Your task to perform on an android device: turn off javascript in the chrome app Image 0: 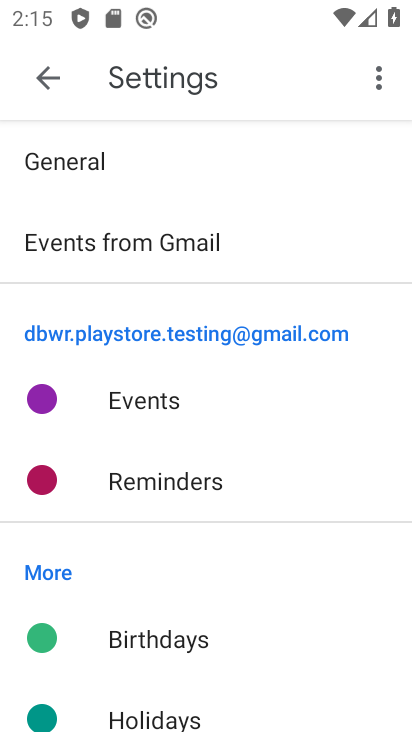
Step 0: press home button
Your task to perform on an android device: turn off javascript in the chrome app Image 1: 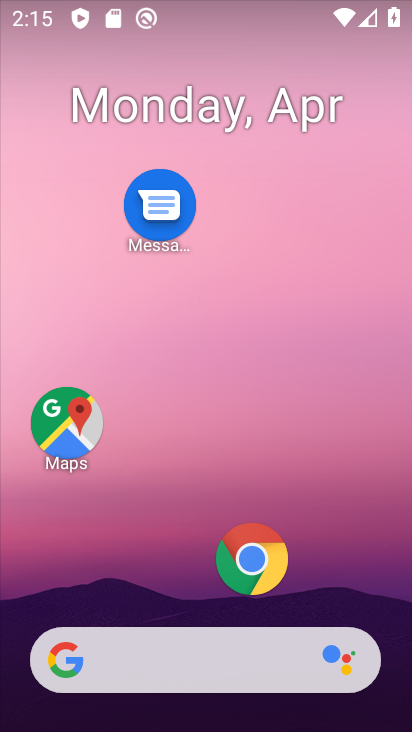
Step 1: drag from (131, 528) to (310, 0)
Your task to perform on an android device: turn off javascript in the chrome app Image 2: 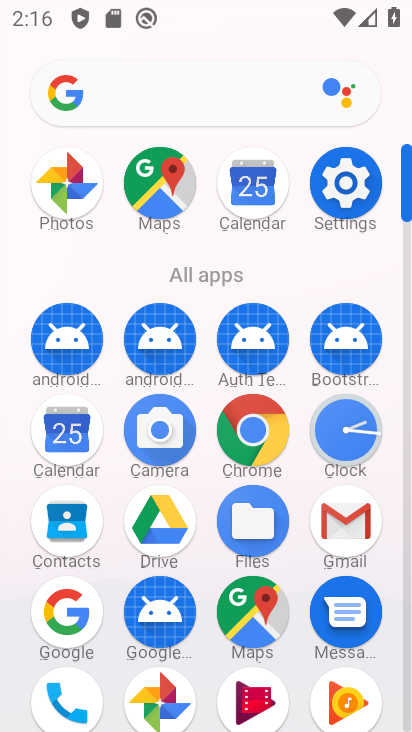
Step 2: click (257, 430)
Your task to perform on an android device: turn off javascript in the chrome app Image 3: 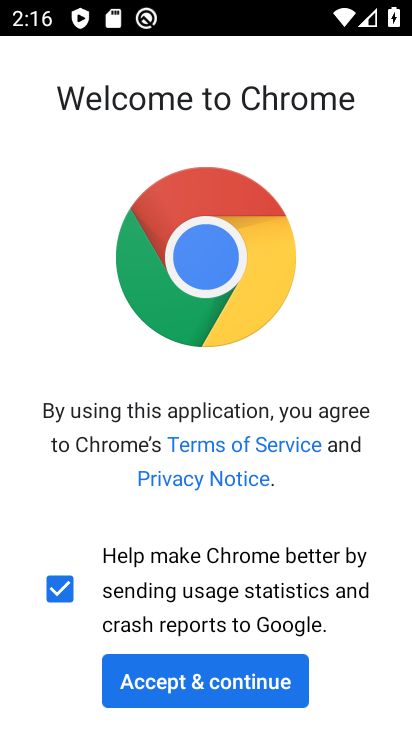
Step 3: click (201, 687)
Your task to perform on an android device: turn off javascript in the chrome app Image 4: 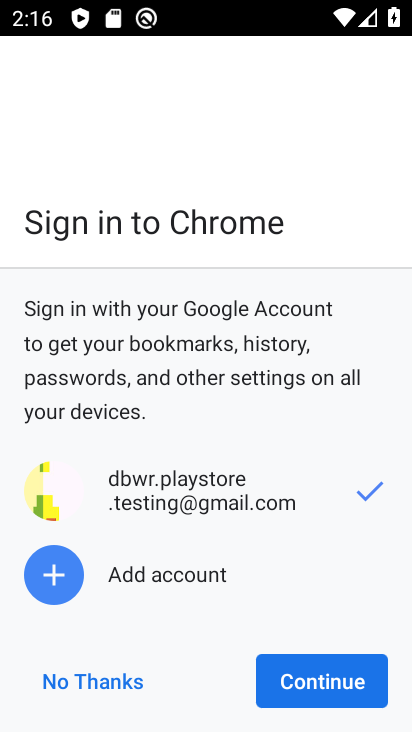
Step 4: click (313, 683)
Your task to perform on an android device: turn off javascript in the chrome app Image 5: 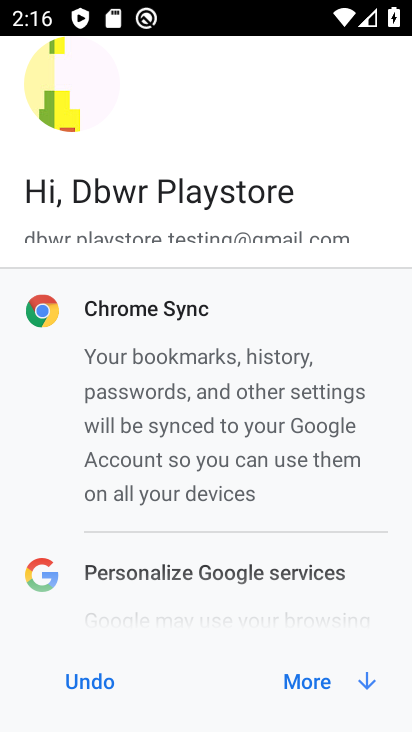
Step 5: click (313, 683)
Your task to perform on an android device: turn off javascript in the chrome app Image 6: 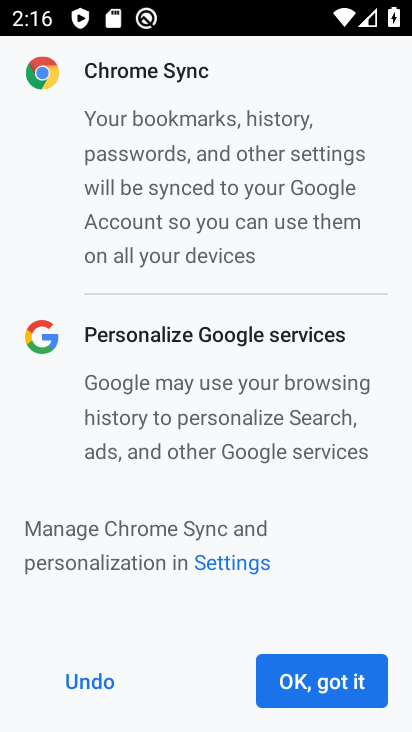
Step 6: click (320, 687)
Your task to perform on an android device: turn off javascript in the chrome app Image 7: 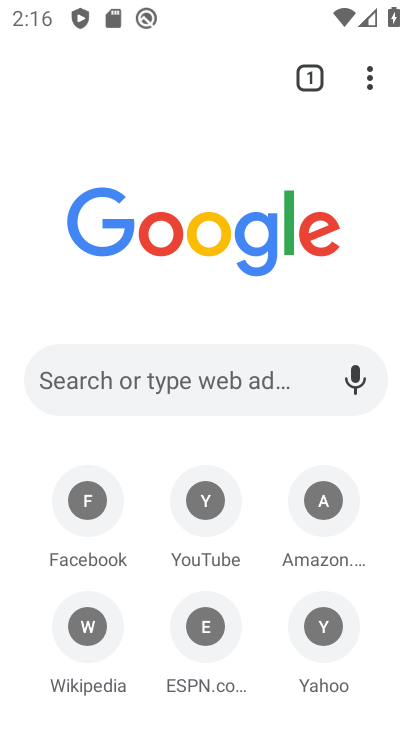
Step 7: click (373, 86)
Your task to perform on an android device: turn off javascript in the chrome app Image 8: 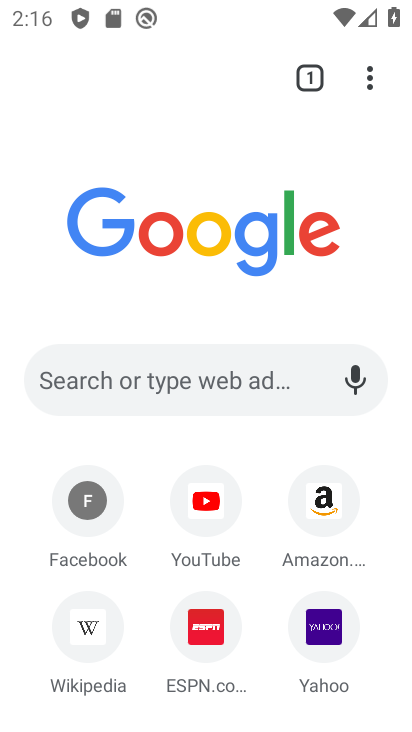
Step 8: click (371, 84)
Your task to perform on an android device: turn off javascript in the chrome app Image 9: 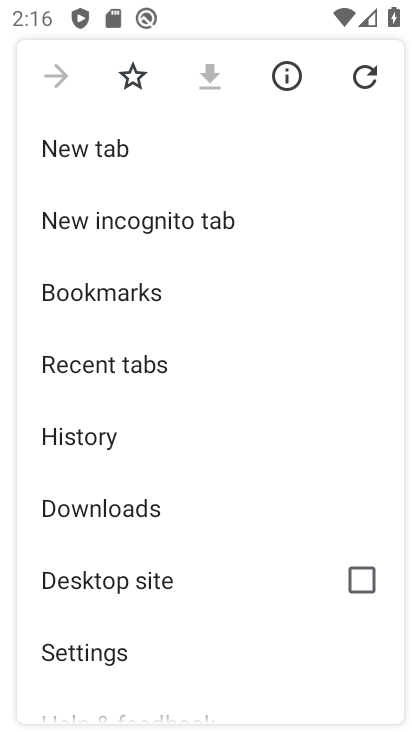
Step 9: drag from (146, 605) to (207, 198)
Your task to perform on an android device: turn off javascript in the chrome app Image 10: 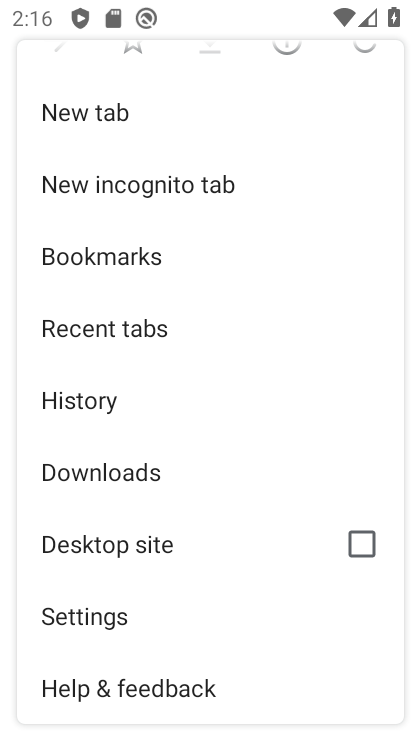
Step 10: click (104, 628)
Your task to perform on an android device: turn off javascript in the chrome app Image 11: 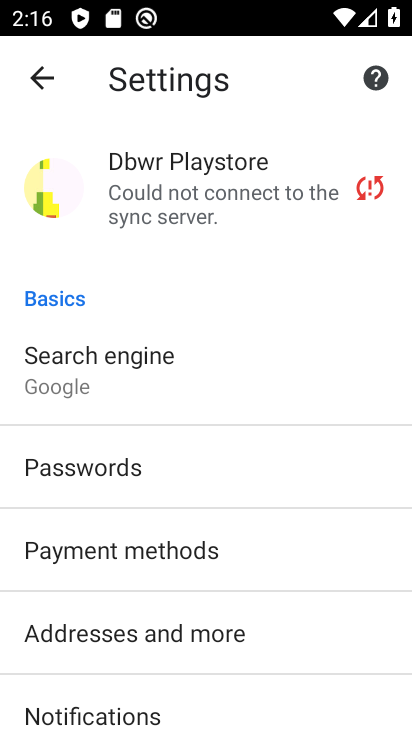
Step 11: drag from (113, 546) to (237, 12)
Your task to perform on an android device: turn off javascript in the chrome app Image 12: 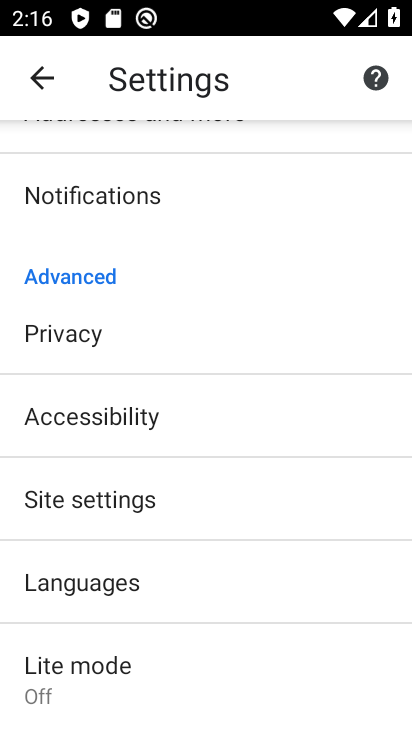
Step 12: click (147, 498)
Your task to perform on an android device: turn off javascript in the chrome app Image 13: 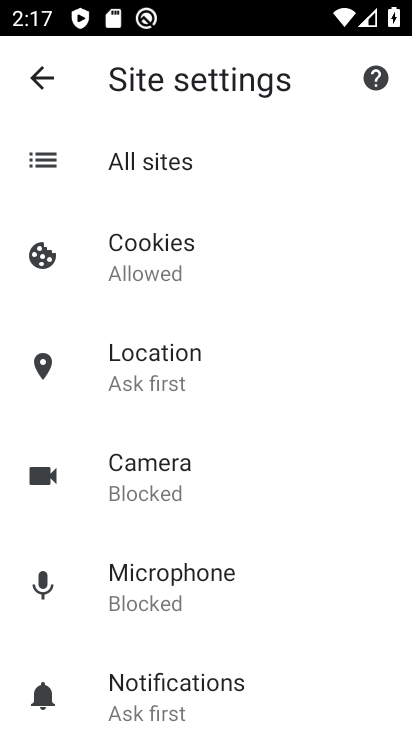
Step 13: drag from (164, 514) to (227, 165)
Your task to perform on an android device: turn off javascript in the chrome app Image 14: 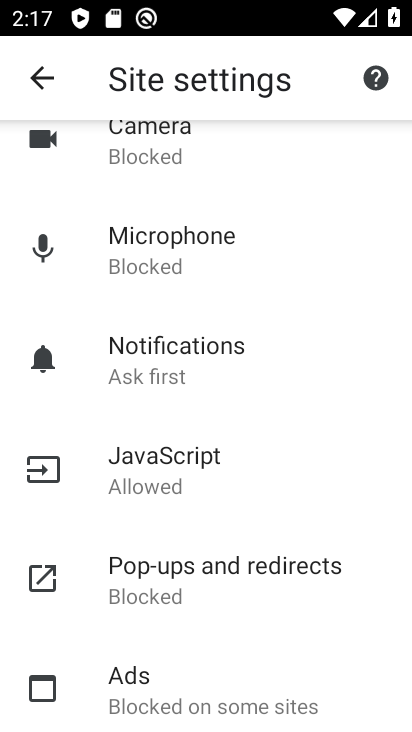
Step 14: click (164, 483)
Your task to perform on an android device: turn off javascript in the chrome app Image 15: 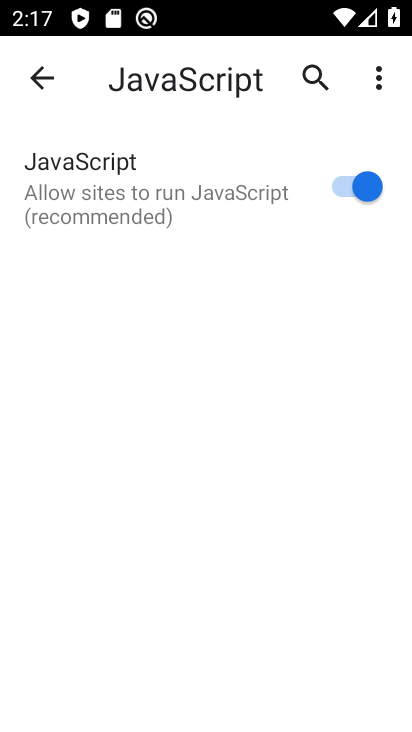
Step 15: click (326, 194)
Your task to perform on an android device: turn off javascript in the chrome app Image 16: 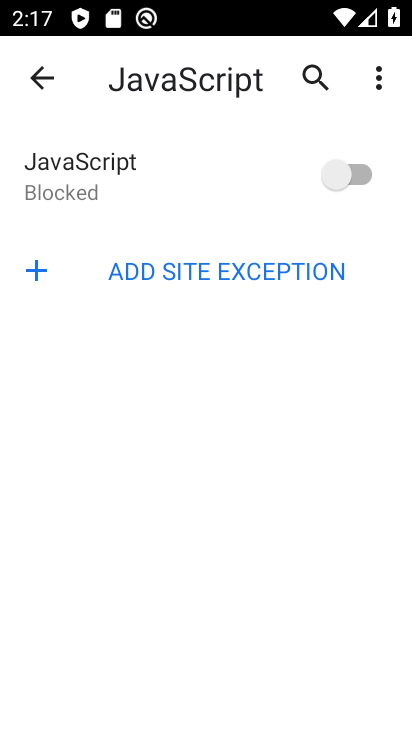
Step 16: task complete